Your task to perform on an android device: Go to Google maps Image 0: 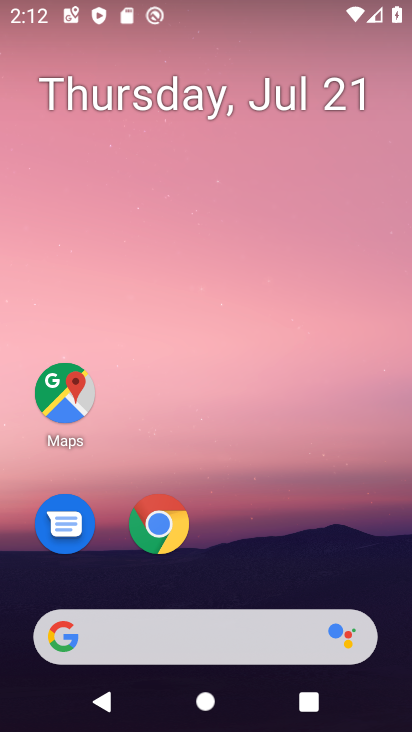
Step 0: drag from (274, 532) to (262, 106)
Your task to perform on an android device: Go to Google maps Image 1: 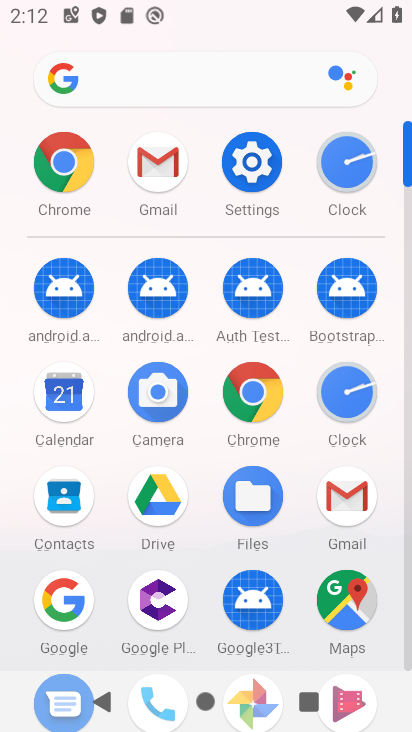
Step 1: click (341, 600)
Your task to perform on an android device: Go to Google maps Image 2: 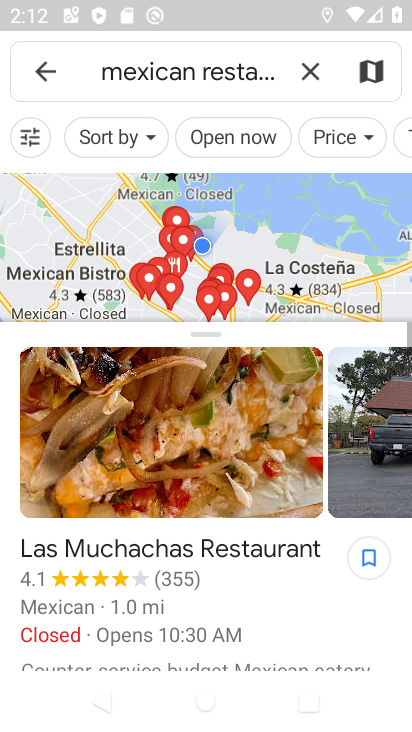
Step 2: click (316, 76)
Your task to perform on an android device: Go to Google maps Image 3: 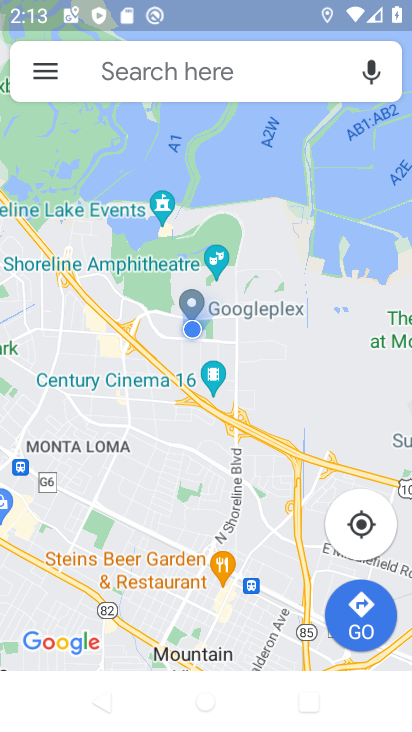
Step 3: task complete